Your task to perform on an android device: Open privacy settings Image 0: 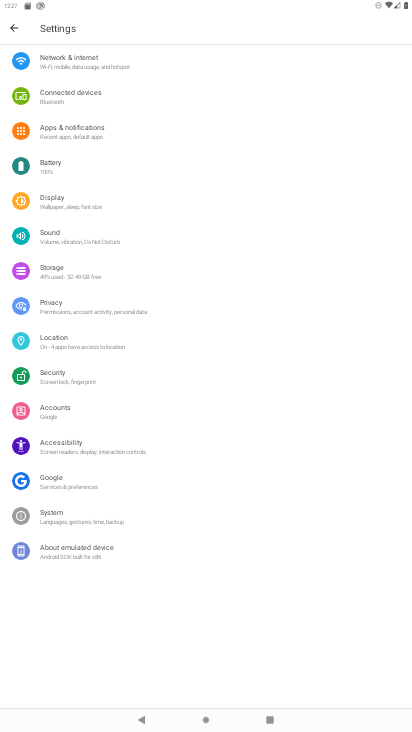
Step 0: click (109, 308)
Your task to perform on an android device: Open privacy settings Image 1: 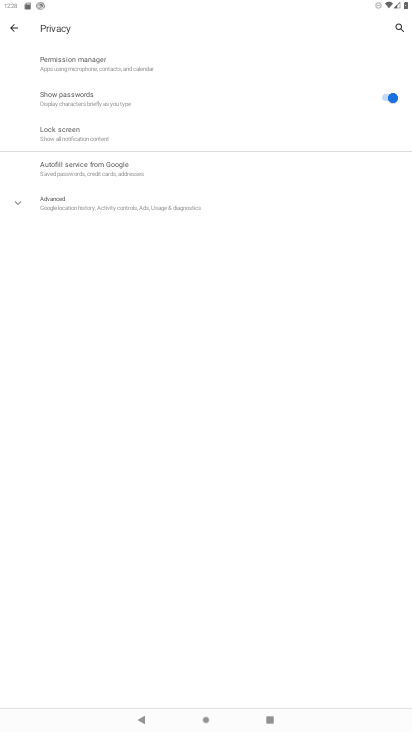
Step 1: task complete